Your task to perform on an android device: Search for Mexican restaurants on Maps Image 0: 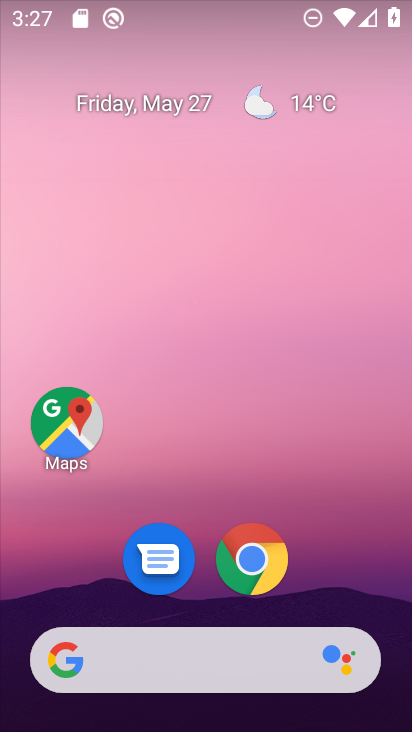
Step 0: press home button
Your task to perform on an android device: Search for Mexican restaurants on Maps Image 1: 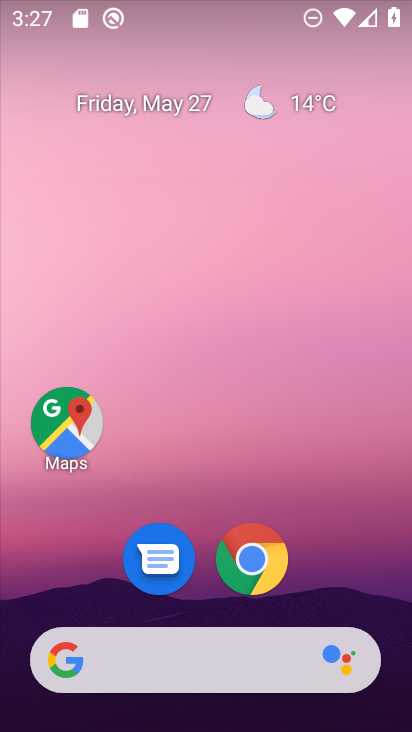
Step 1: drag from (319, 514) to (347, 56)
Your task to perform on an android device: Search for Mexican restaurants on Maps Image 2: 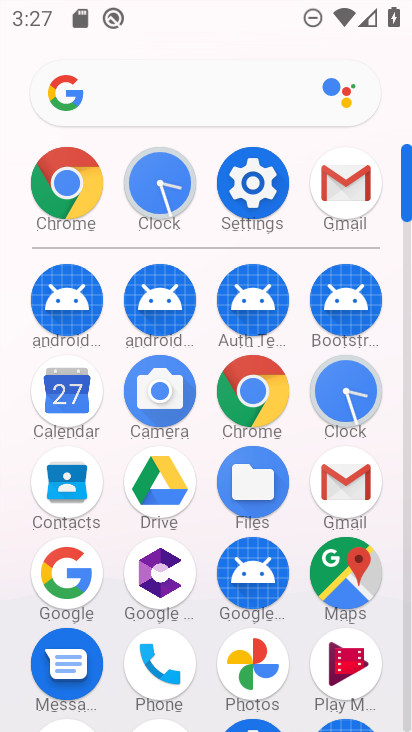
Step 2: click (358, 560)
Your task to perform on an android device: Search for Mexican restaurants on Maps Image 3: 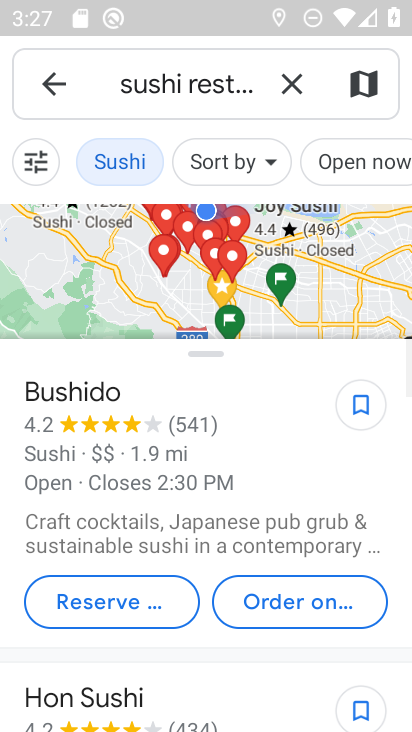
Step 3: click (296, 87)
Your task to perform on an android device: Search for Mexican restaurants on Maps Image 4: 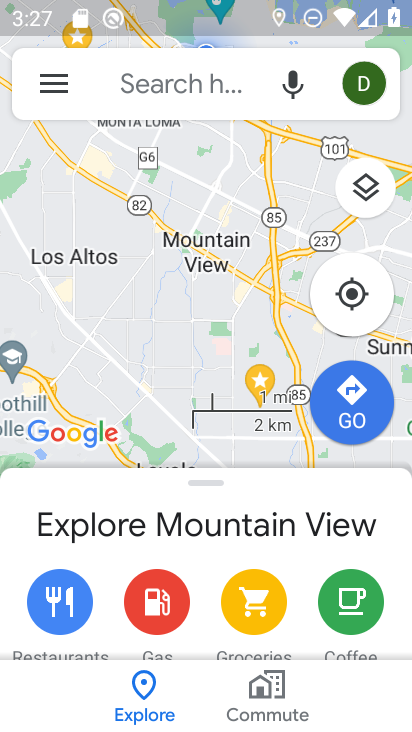
Step 4: click (181, 85)
Your task to perform on an android device: Search for Mexican restaurants on Maps Image 5: 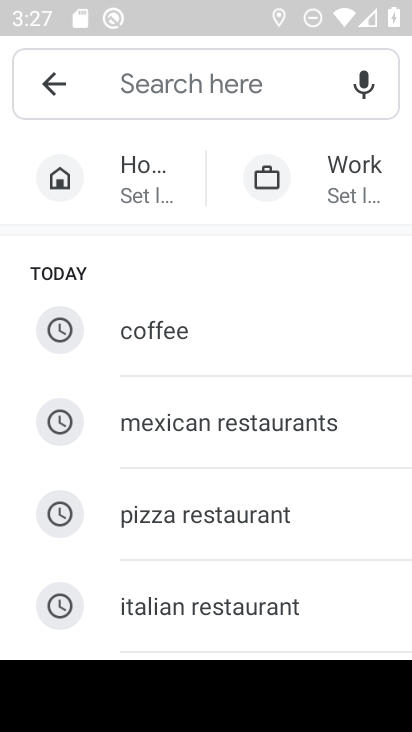
Step 5: type "mexican resturant"
Your task to perform on an android device: Search for Mexican restaurants on Maps Image 6: 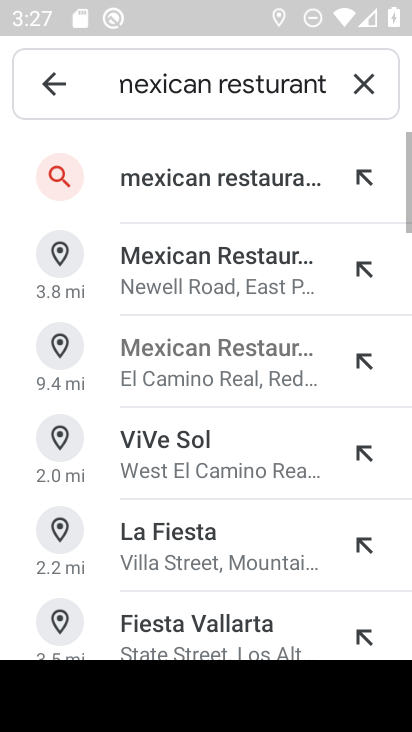
Step 6: click (207, 194)
Your task to perform on an android device: Search for Mexican restaurants on Maps Image 7: 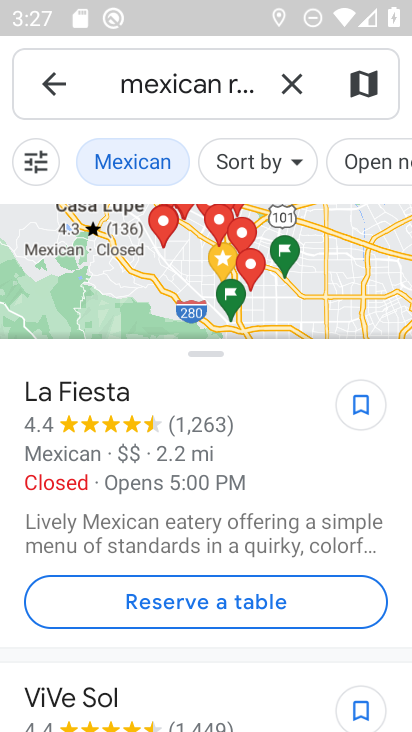
Step 7: task complete